Your task to perform on an android device: What's the weather today? Image 0: 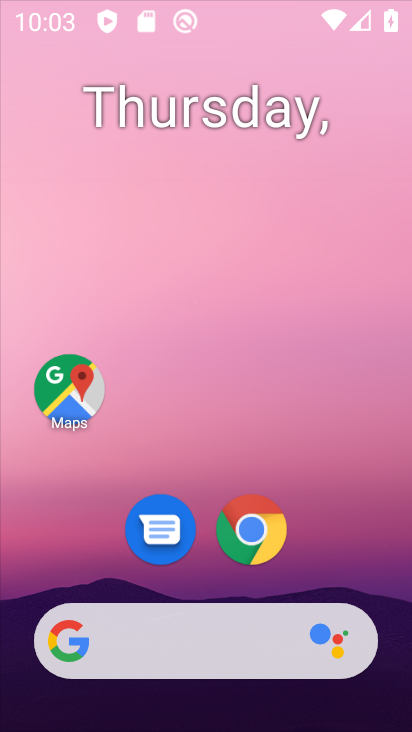
Step 0: click (268, 103)
Your task to perform on an android device: What's the weather today? Image 1: 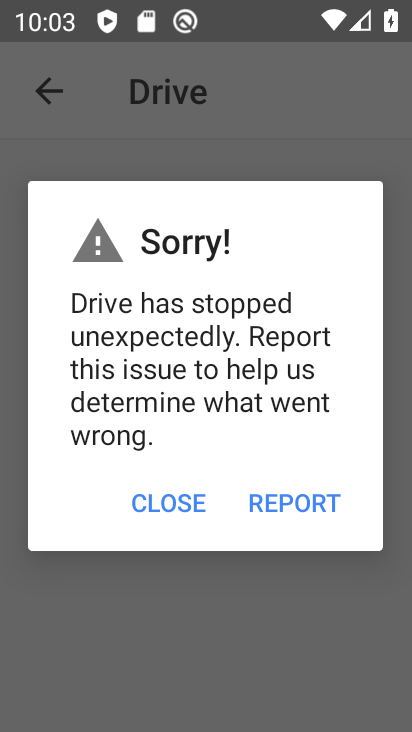
Step 1: press home button
Your task to perform on an android device: What's the weather today? Image 2: 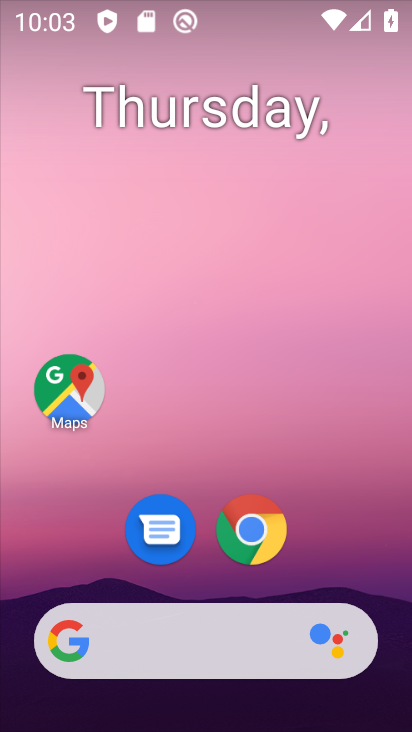
Step 2: click (151, 651)
Your task to perform on an android device: What's the weather today? Image 3: 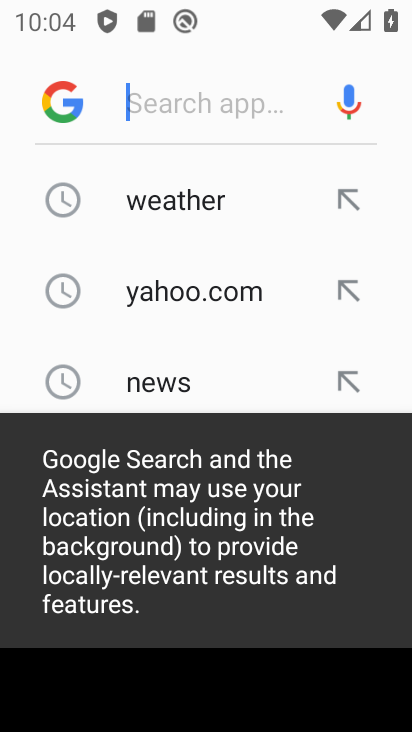
Step 3: click (162, 198)
Your task to perform on an android device: What's the weather today? Image 4: 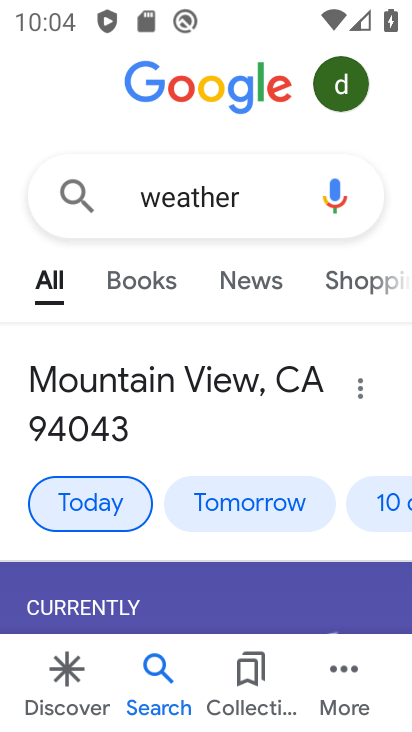
Step 4: task complete